Your task to perform on an android device: turn notification dots off Image 0: 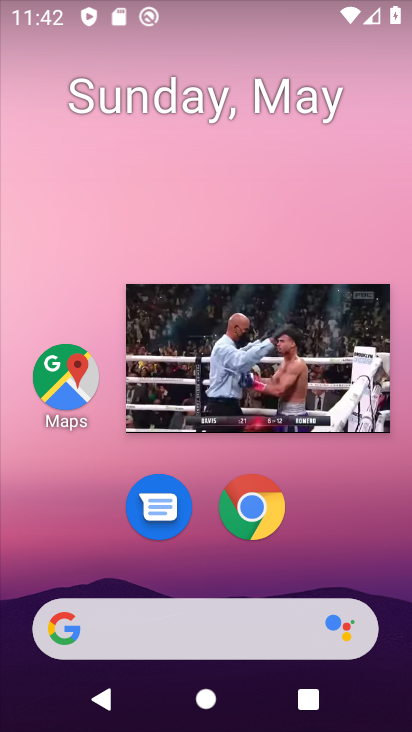
Step 0: click (359, 311)
Your task to perform on an android device: turn notification dots off Image 1: 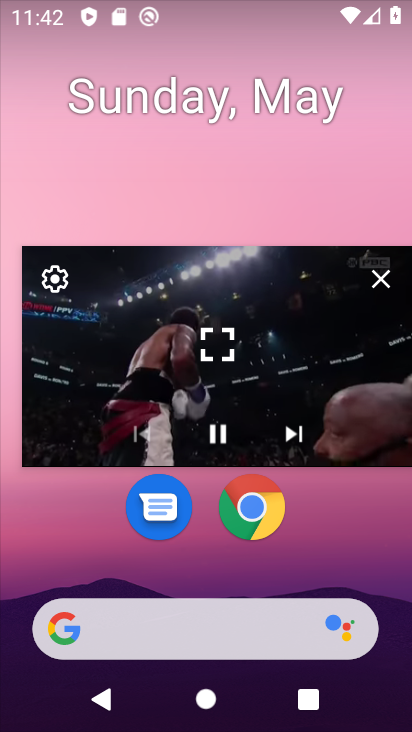
Step 1: click (381, 274)
Your task to perform on an android device: turn notification dots off Image 2: 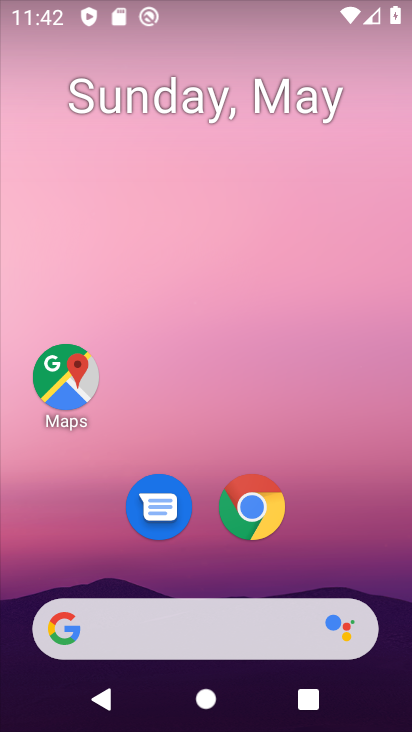
Step 2: drag from (223, 719) to (223, 105)
Your task to perform on an android device: turn notification dots off Image 3: 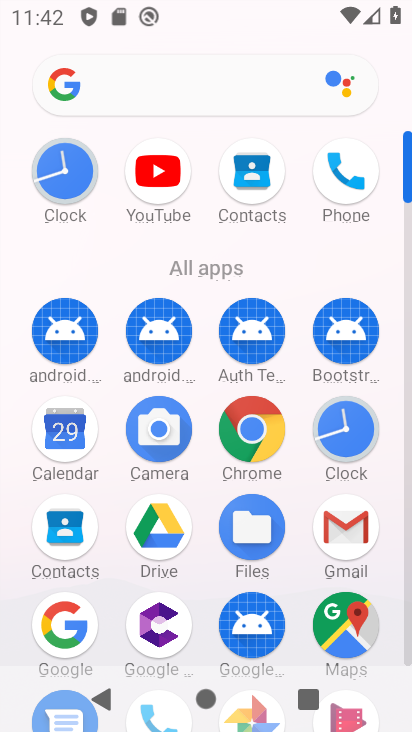
Step 3: drag from (199, 648) to (183, 307)
Your task to perform on an android device: turn notification dots off Image 4: 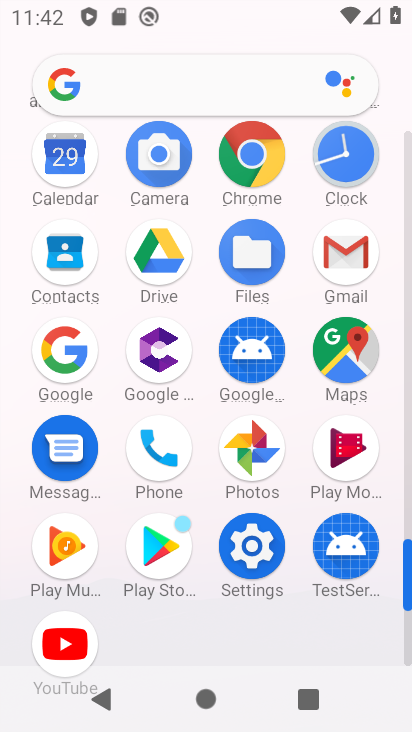
Step 4: click (255, 539)
Your task to perform on an android device: turn notification dots off Image 5: 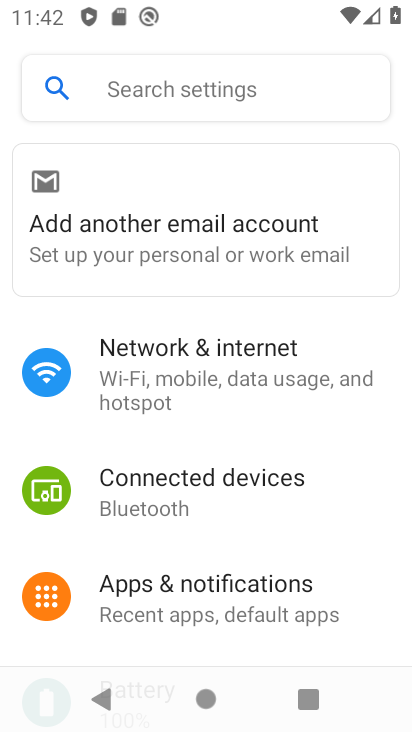
Step 5: click (168, 597)
Your task to perform on an android device: turn notification dots off Image 6: 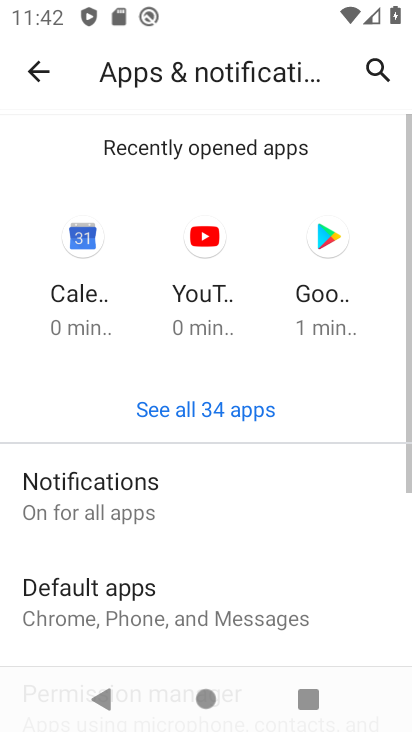
Step 6: click (90, 491)
Your task to perform on an android device: turn notification dots off Image 7: 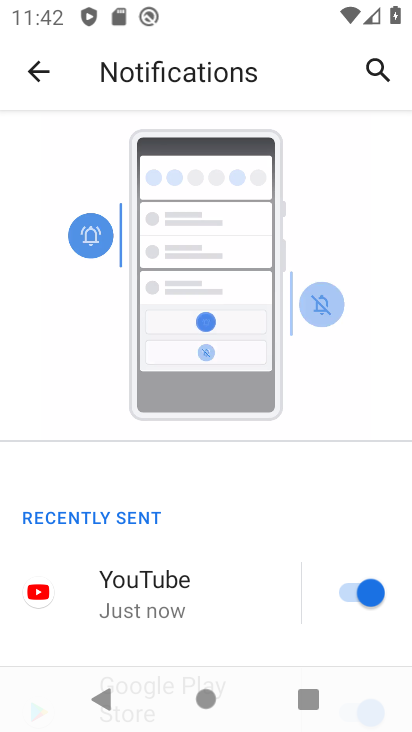
Step 7: drag from (230, 657) to (223, 257)
Your task to perform on an android device: turn notification dots off Image 8: 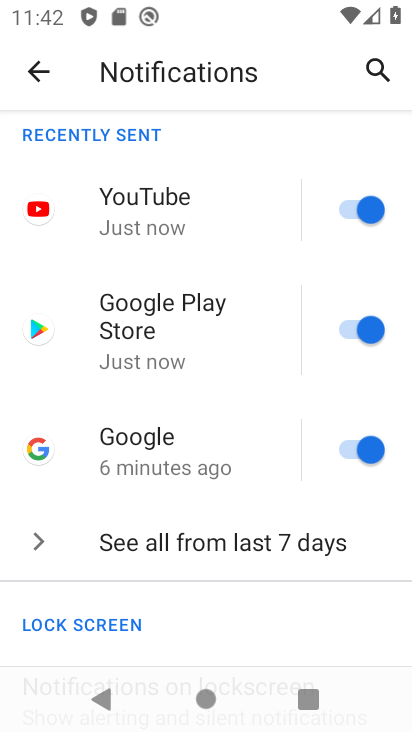
Step 8: drag from (201, 645) to (209, 255)
Your task to perform on an android device: turn notification dots off Image 9: 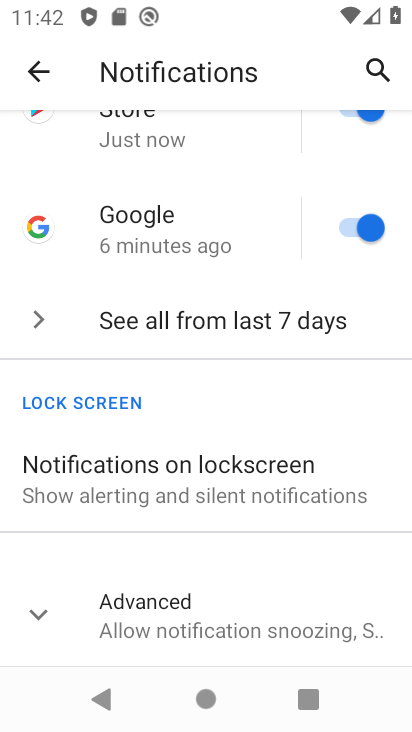
Step 9: click (148, 604)
Your task to perform on an android device: turn notification dots off Image 10: 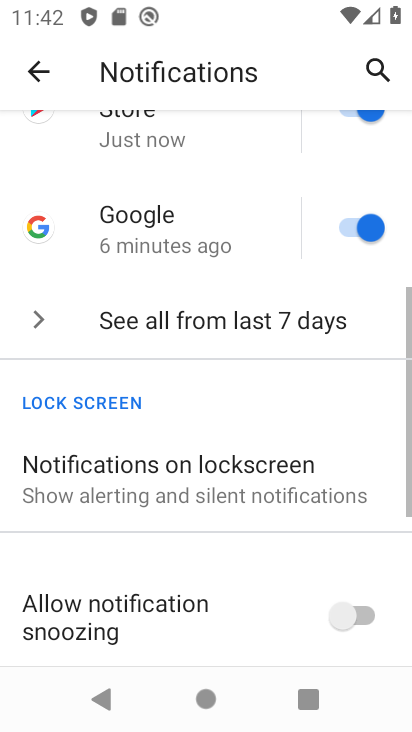
Step 10: drag from (231, 625) to (222, 276)
Your task to perform on an android device: turn notification dots off Image 11: 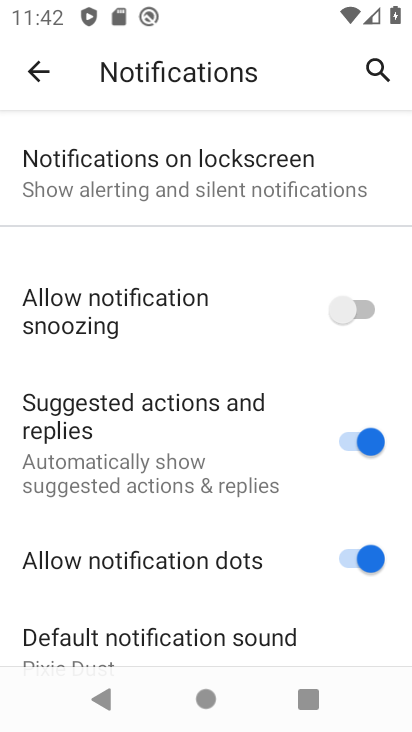
Step 11: click (345, 559)
Your task to perform on an android device: turn notification dots off Image 12: 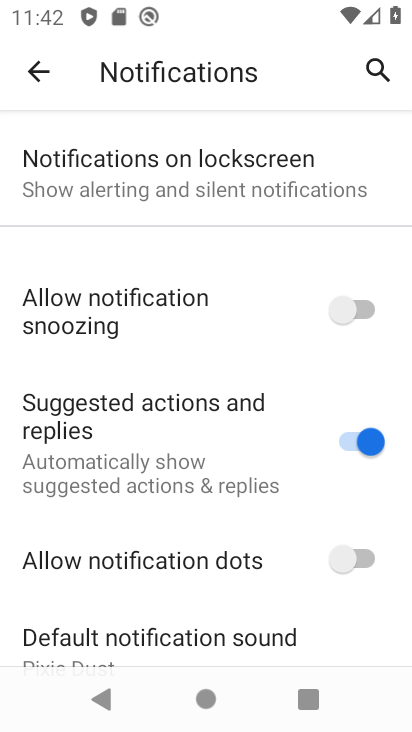
Step 12: task complete